Your task to perform on an android device: Is it going to rain tomorrow? Image 0: 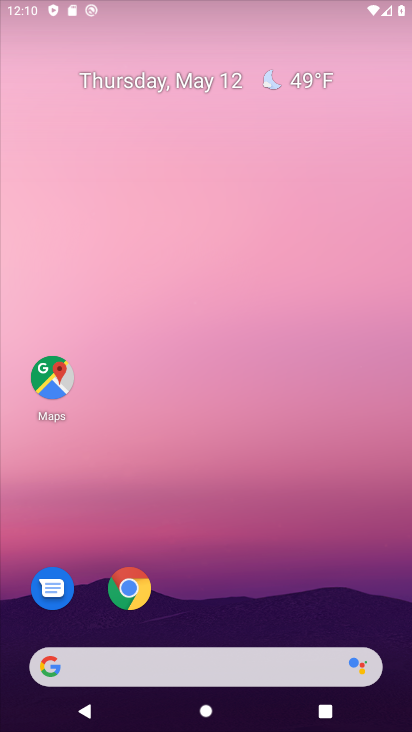
Step 0: drag from (288, 445) to (199, 67)
Your task to perform on an android device: Is it going to rain tomorrow? Image 1: 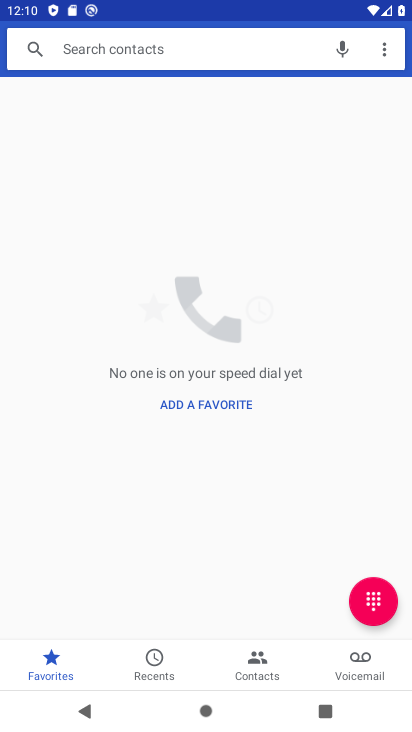
Step 1: press home button
Your task to perform on an android device: Is it going to rain tomorrow? Image 2: 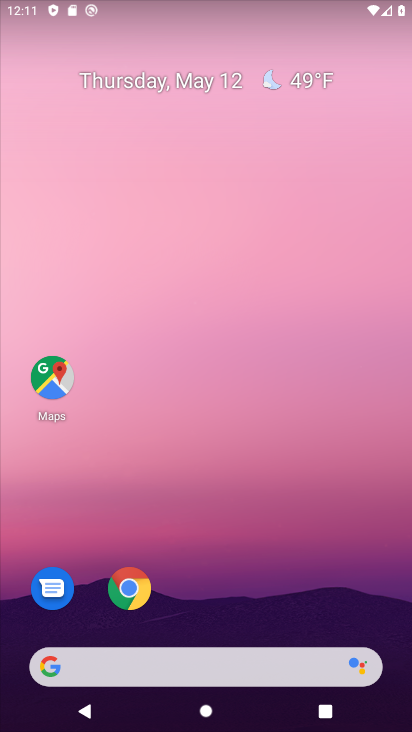
Step 2: drag from (13, 168) to (411, 314)
Your task to perform on an android device: Is it going to rain tomorrow? Image 3: 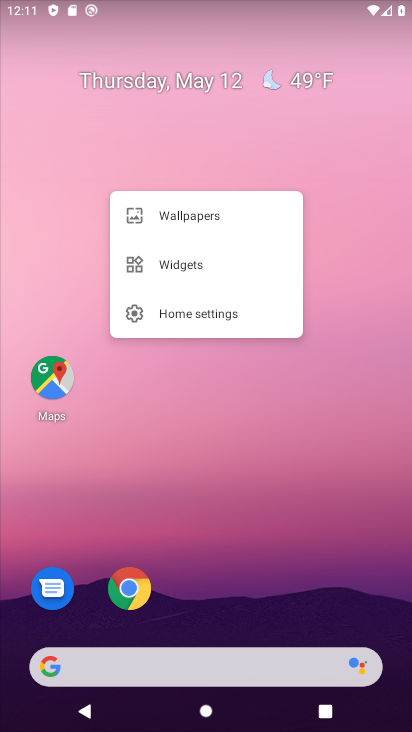
Step 3: click (193, 392)
Your task to perform on an android device: Is it going to rain tomorrow? Image 4: 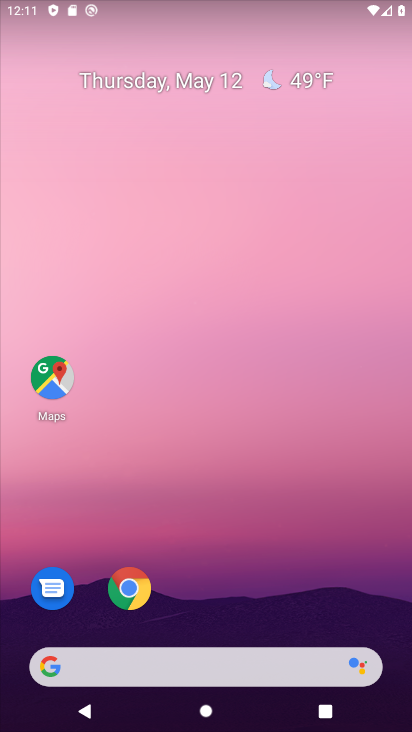
Step 4: drag from (25, 116) to (97, 179)
Your task to perform on an android device: Is it going to rain tomorrow? Image 5: 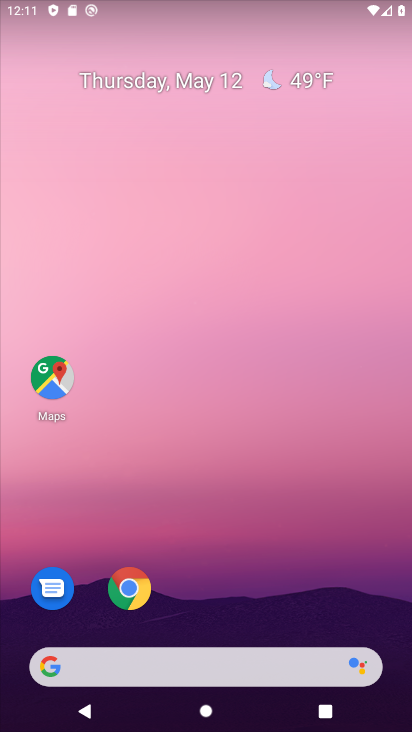
Step 5: drag from (30, 204) to (407, 328)
Your task to perform on an android device: Is it going to rain tomorrow? Image 6: 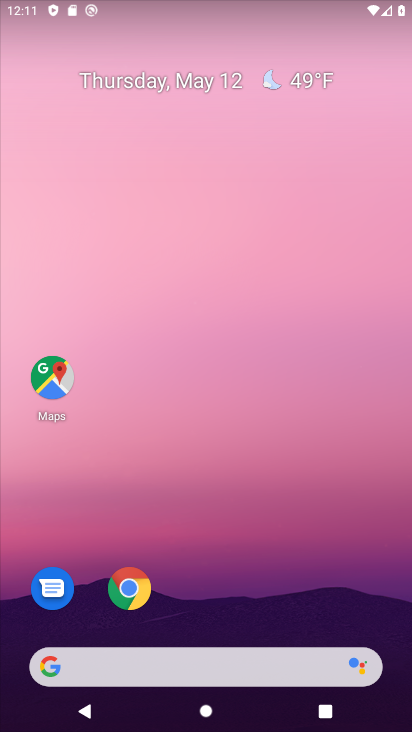
Step 6: drag from (10, 205) to (410, 389)
Your task to perform on an android device: Is it going to rain tomorrow? Image 7: 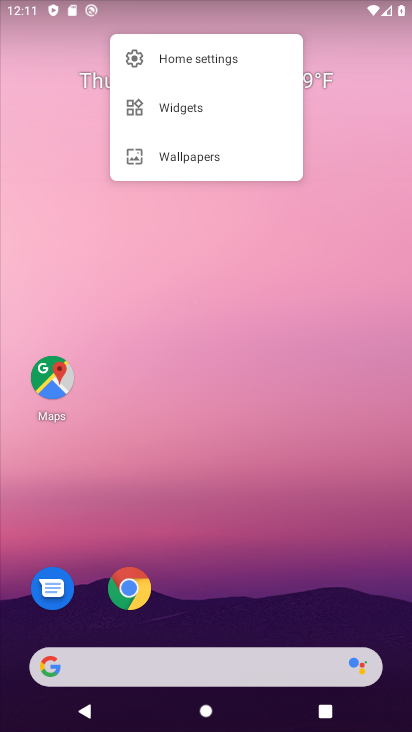
Step 7: drag from (78, 198) to (411, 345)
Your task to perform on an android device: Is it going to rain tomorrow? Image 8: 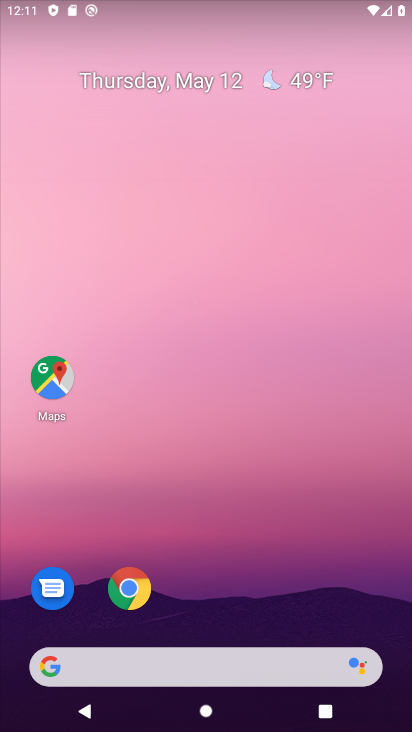
Step 8: drag from (11, 215) to (399, 388)
Your task to perform on an android device: Is it going to rain tomorrow? Image 9: 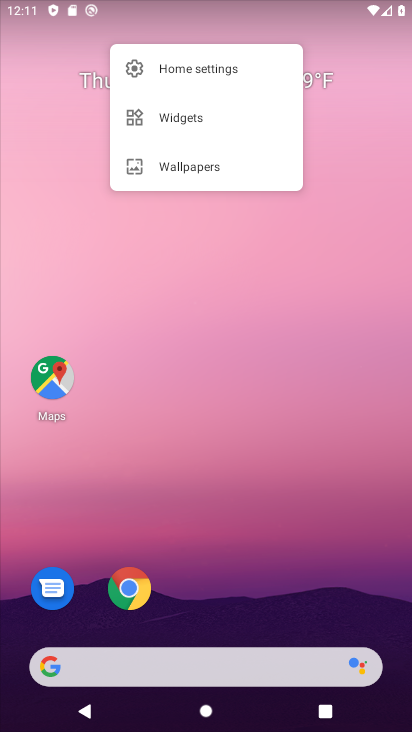
Step 9: click (17, 197)
Your task to perform on an android device: Is it going to rain tomorrow? Image 10: 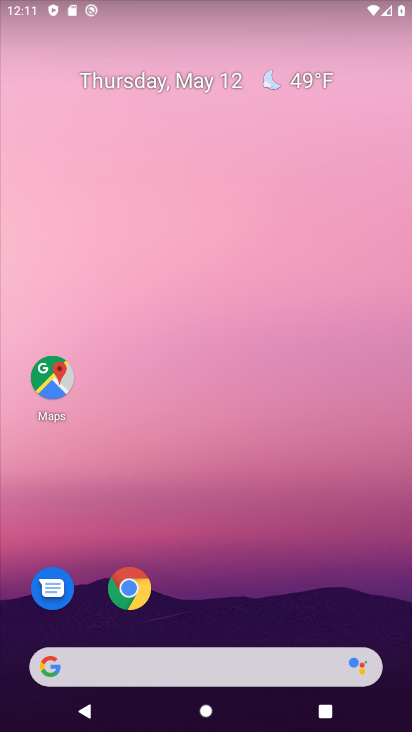
Step 10: press back button
Your task to perform on an android device: Is it going to rain tomorrow? Image 11: 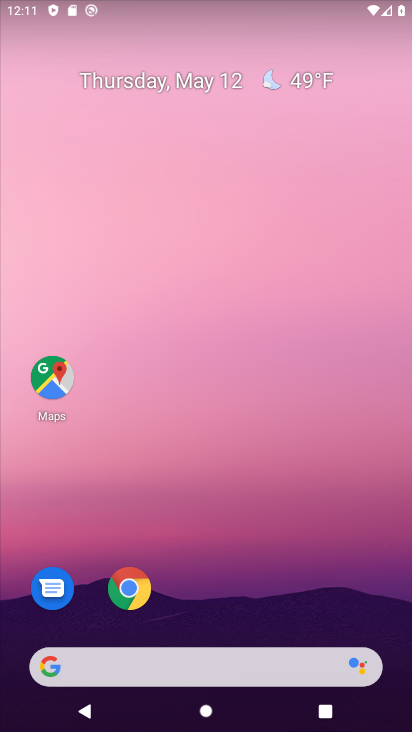
Step 11: drag from (17, 197) to (397, 313)
Your task to perform on an android device: Is it going to rain tomorrow? Image 12: 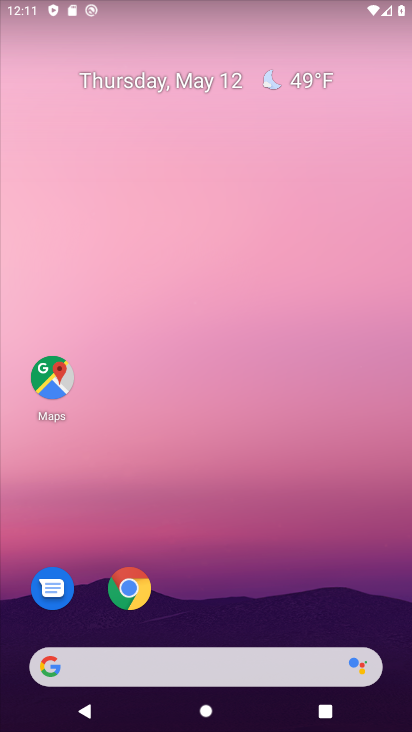
Step 12: drag from (16, 129) to (340, 384)
Your task to perform on an android device: Is it going to rain tomorrow? Image 13: 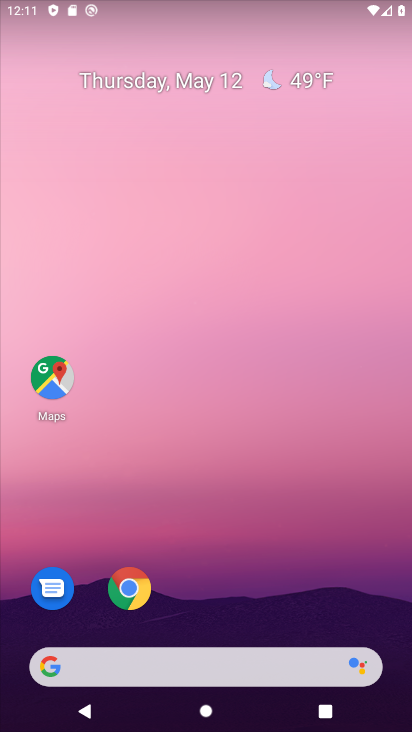
Step 13: drag from (16, 221) to (390, 298)
Your task to perform on an android device: Is it going to rain tomorrow? Image 14: 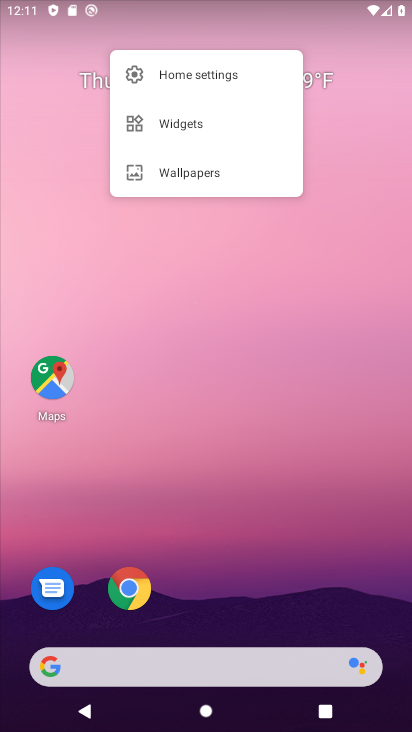
Step 14: click (327, 185)
Your task to perform on an android device: Is it going to rain tomorrow? Image 15: 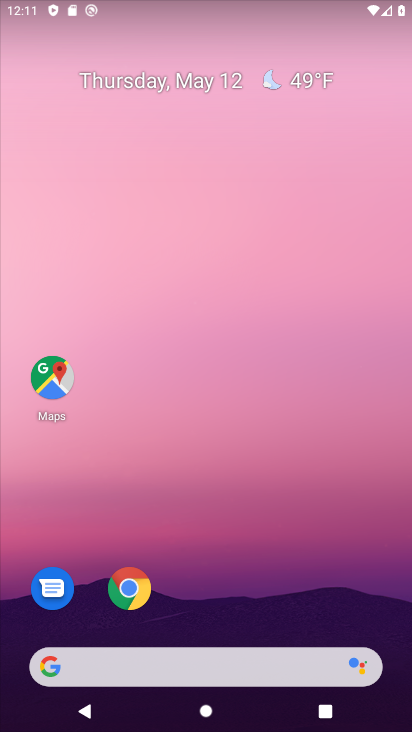
Step 15: click (325, 141)
Your task to perform on an android device: Is it going to rain tomorrow? Image 16: 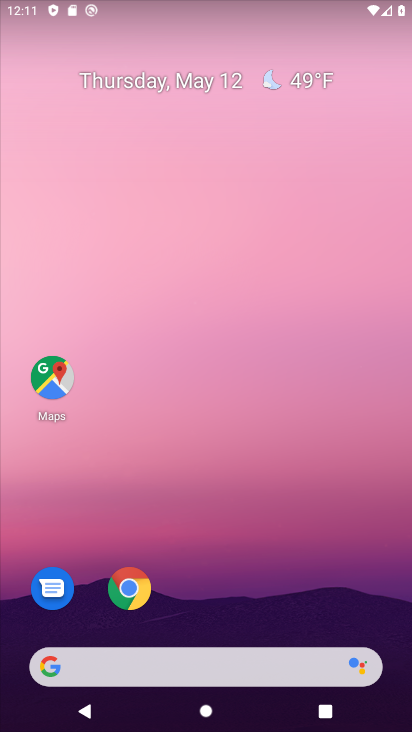
Step 16: click (282, 82)
Your task to perform on an android device: Is it going to rain tomorrow? Image 17: 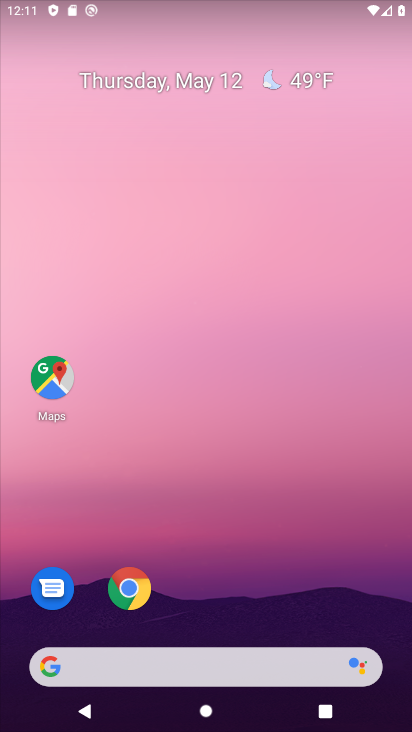
Step 17: click (282, 82)
Your task to perform on an android device: Is it going to rain tomorrow? Image 18: 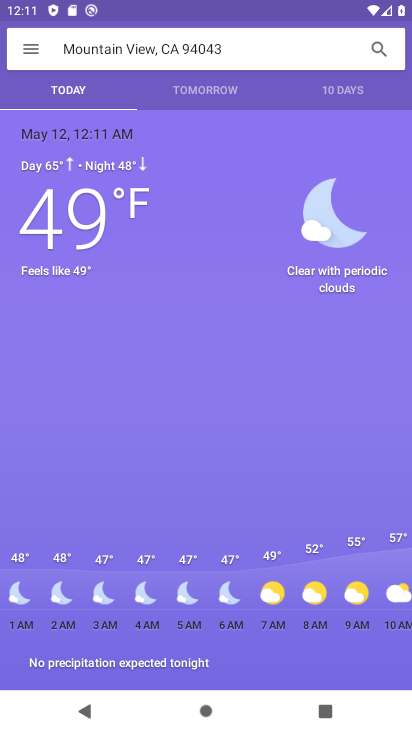
Step 18: drag from (280, 422) to (181, 16)
Your task to perform on an android device: Is it going to rain tomorrow? Image 19: 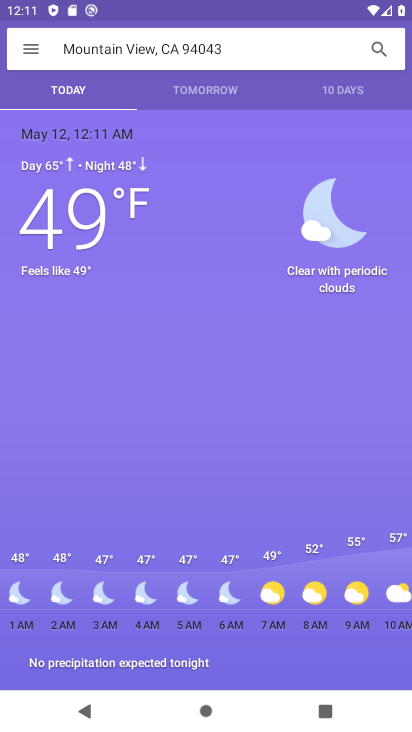
Step 19: drag from (181, 391) to (178, 152)
Your task to perform on an android device: Is it going to rain tomorrow? Image 20: 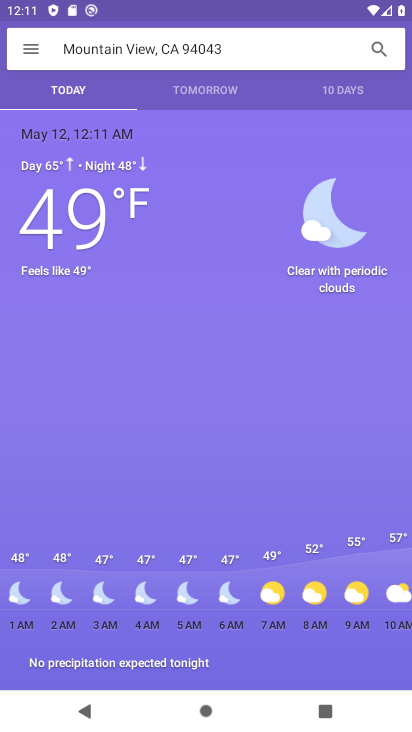
Step 20: drag from (190, 392) to (189, 100)
Your task to perform on an android device: Is it going to rain tomorrow? Image 21: 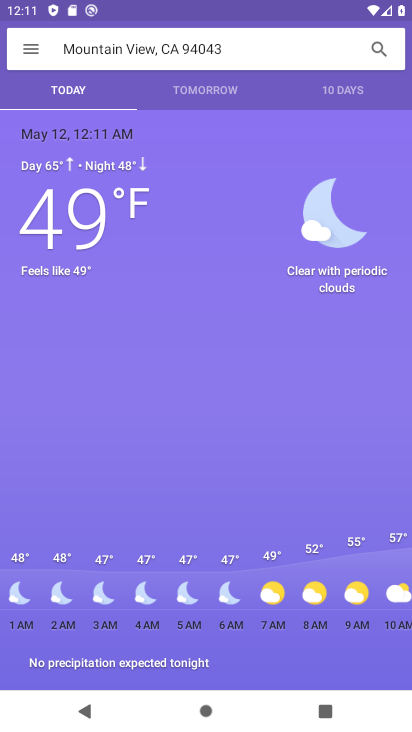
Step 21: drag from (221, 386) to (172, 26)
Your task to perform on an android device: Is it going to rain tomorrow? Image 22: 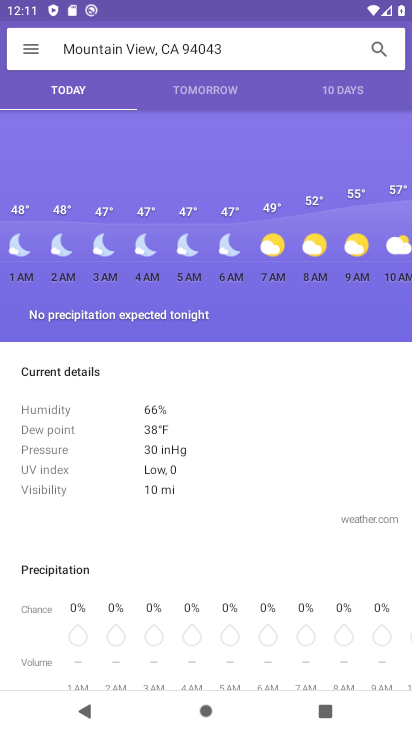
Step 22: drag from (205, 173) to (200, 398)
Your task to perform on an android device: Is it going to rain tomorrow? Image 23: 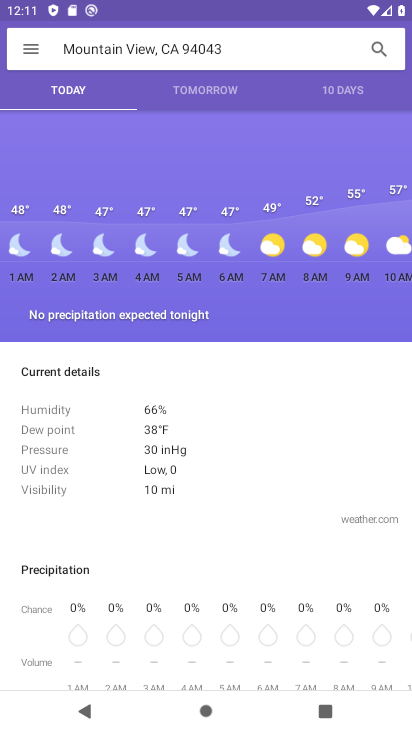
Step 23: drag from (211, 254) to (262, 528)
Your task to perform on an android device: Is it going to rain tomorrow? Image 24: 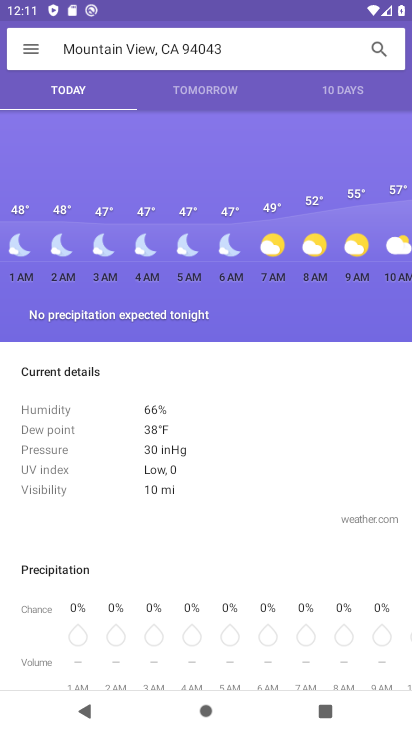
Step 24: drag from (281, 288) to (246, 509)
Your task to perform on an android device: Is it going to rain tomorrow? Image 25: 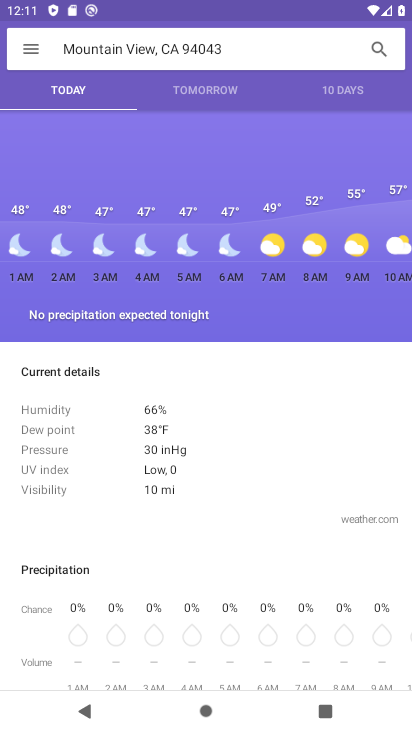
Step 25: drag from (242, 178) to (223, 479)
Your task to perform on an android device: Is it going to rain tomorrow? Image 26: 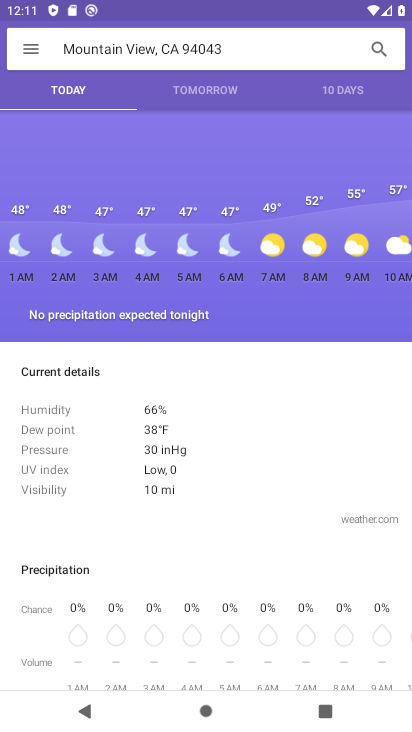
Step 26: drag from (212, 146) to (211, 377)
Your task to perform on an android device: Is it going to rain tomorrow? Image 27: 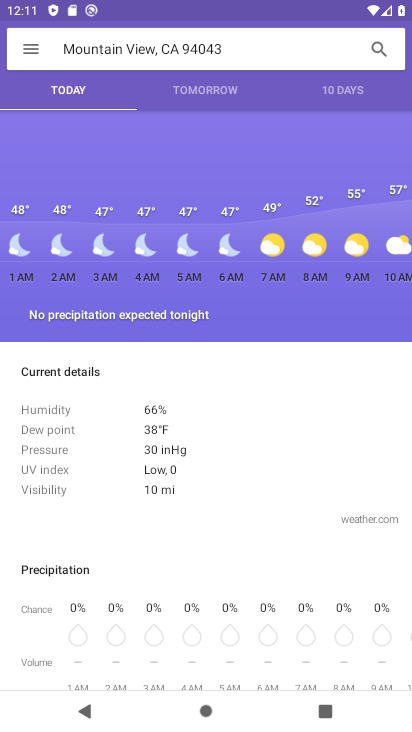
Step 27: click (198, 100)
Your task to perform on an android device: Is it going to rain tomorrow? Image 28: 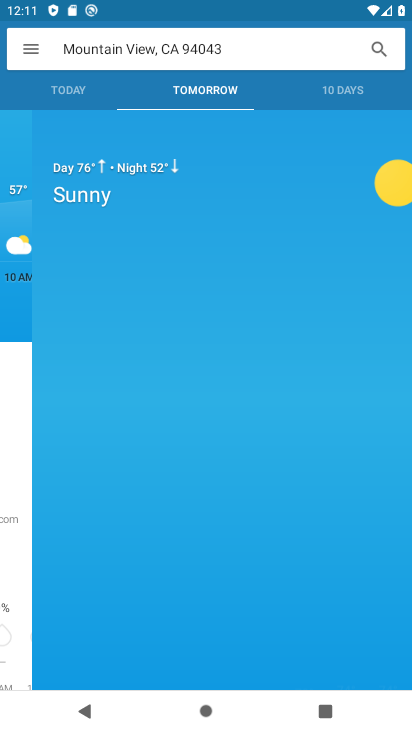
Step 28: click (199, 87)
Your task to perform on an android device: Is it going to rain tomorrow? Image 29: 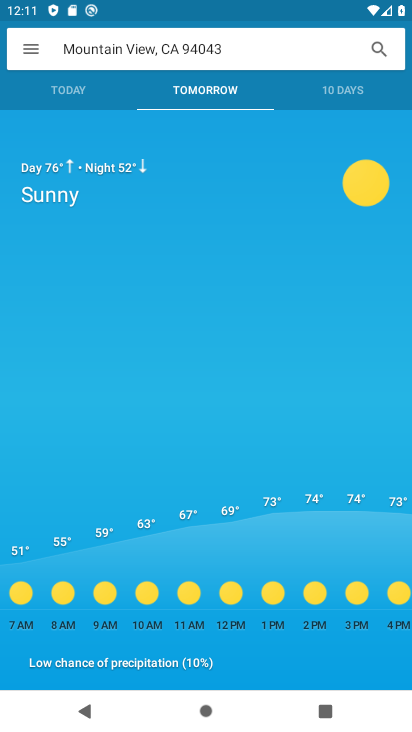
Step 29: task complete